Your task to perform on an android device: Go to sound settings Image 0: 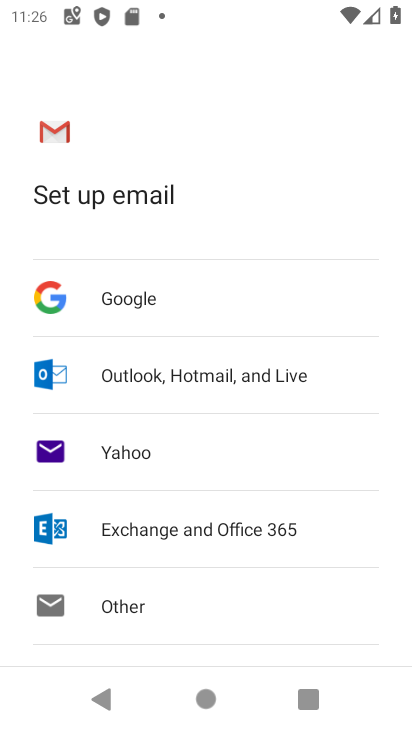
Step 0: press home button
Your task to perform on an android device: Go to sound settings Image 1: 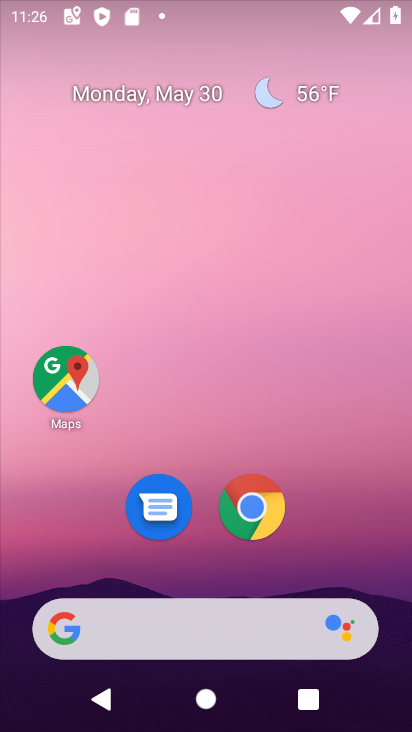
Step 1: drag from (337, 538) to (321, 63)
Your task to perform on an android device: Go to sound settings Image 2: 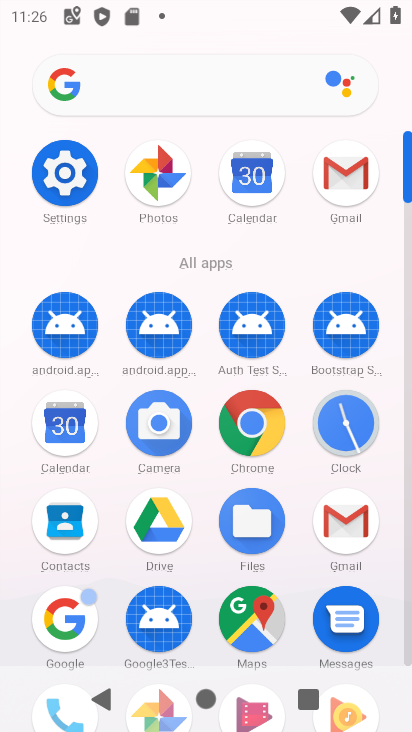
Step 2: click (56, 199)
Your task to perform on an android device: Go to sound settings Image 3: 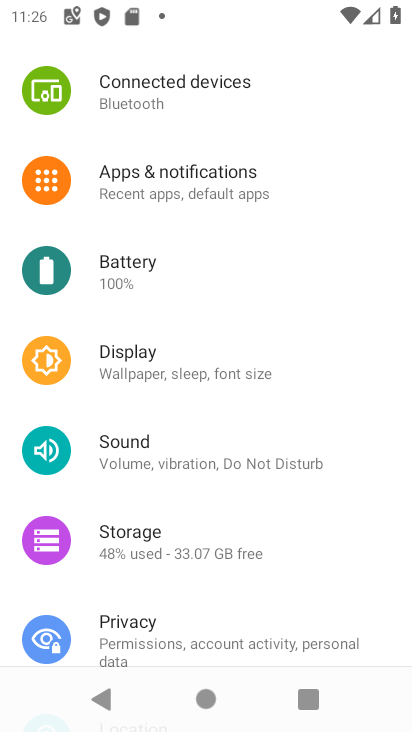
Step 3: click (182, 459)
Your task to perform on an android device: Go to sound settings Image 4: 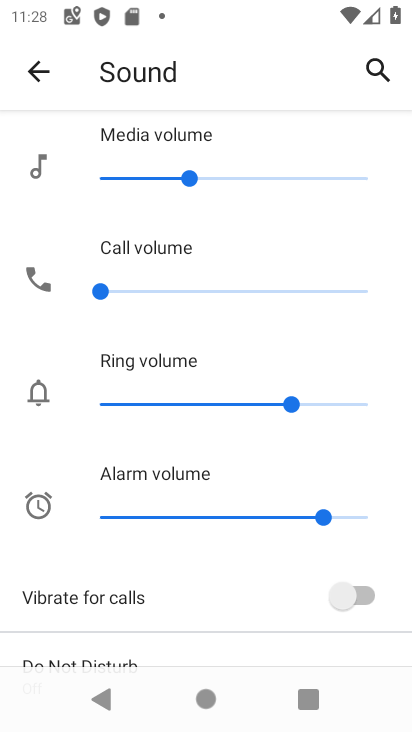
Step 4: task complete